Your task to perform on an android device: set the timer Image 0: 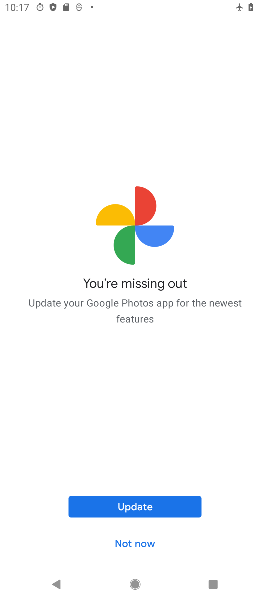
Step 0: press home button
Your task to perform on an android device: set the timer Image 1: 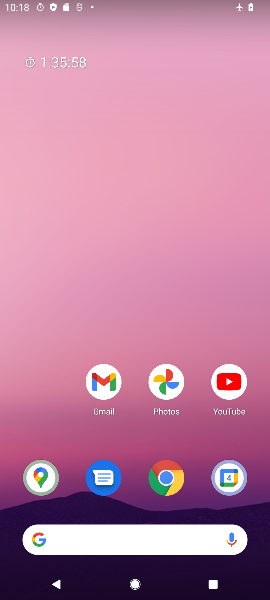
Step 1: drag from (195, 486) to (261, 14)
Your task to perform on an android device: set the timer Image 2: 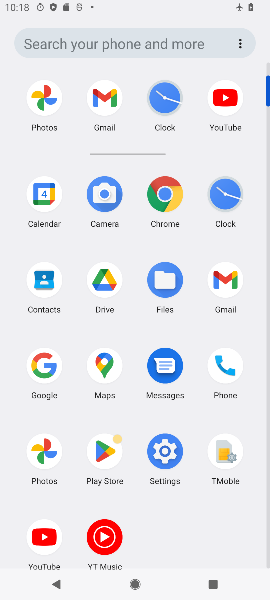
Step 2: click (224, 192)
Your task to perform on an android device: set the timer Image 3: 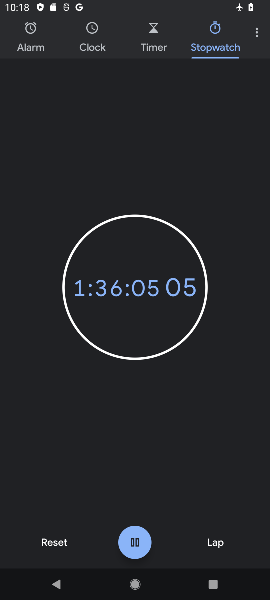
Step 3: click (167, 31)
Your task to perform on an android device: set the timer Image 4: 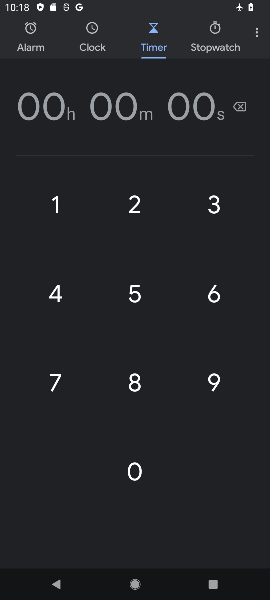
Step 4: click (134, 199)
Your task to perform on an android device: set the timer Image 5: 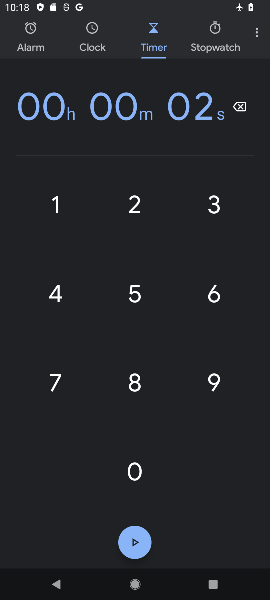
Step 5: click (132, 283)
Your task to perform on an android device: set the timer Image 6: 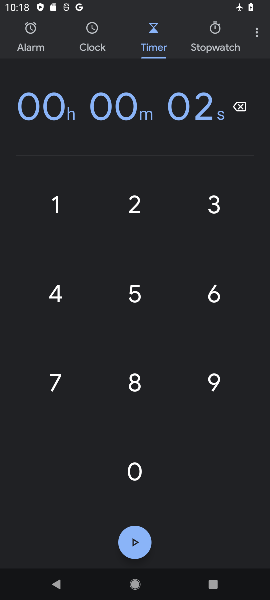
Step 6: click (132, 283)
Your task to perform on an android device: set the timer Image 7: 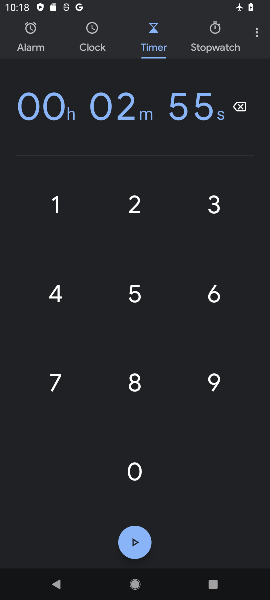
Step 7: click (214, 200)
Your task to perform on an android device: set the timer Image 8: 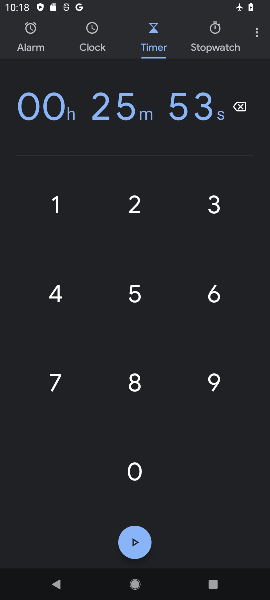
Step 8: click (131, 187)
Your task to perform on an android device: set the timer Image 9: 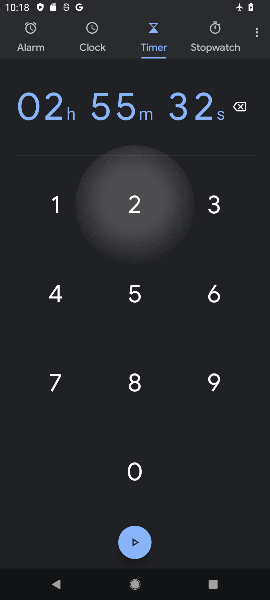
Step 9: click (131, 187)
Your task to perform on an android device: set the timer Image 10: 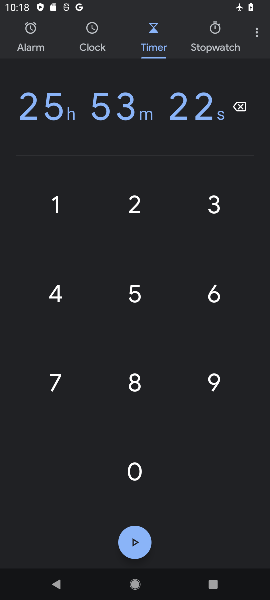
Step 10: click (138, 538)
Your task to perform on an android device: set the timer Image 11: 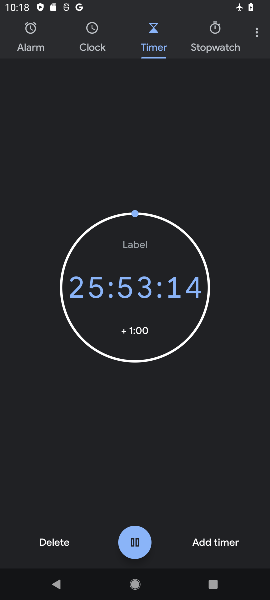
Step 11: task complete